Your task to perform on an android device: Show me popular videos on Youtube Image 0: 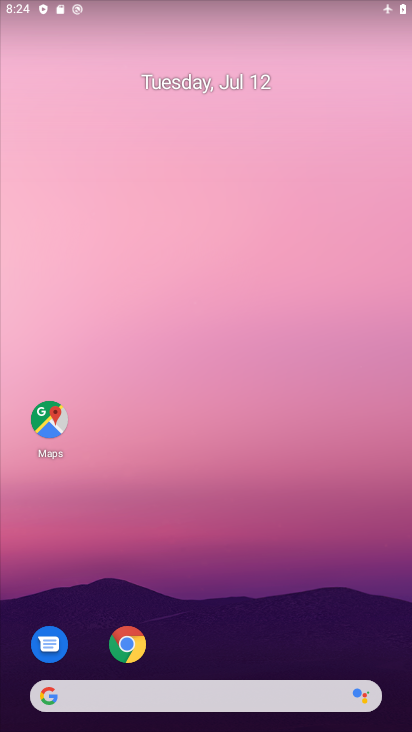
Step 0: drag from (230, 638) to (212, 175)
Your task to perform on an android device: Show me popular videos on Youtube Image 1: 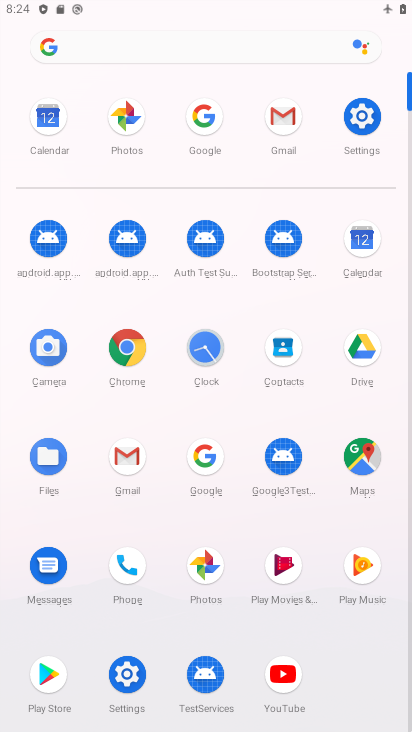
Step 1: click (290, 680)
Your task to perform on an android device: Show me popular videos on Youtube Image 2: 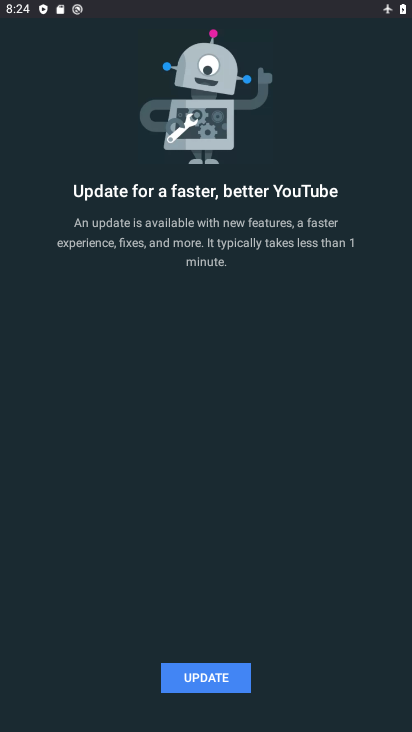
Step 2: click (211, 663)
Your task to perform on an android device: Show me popular videos on Youtube Image 3: 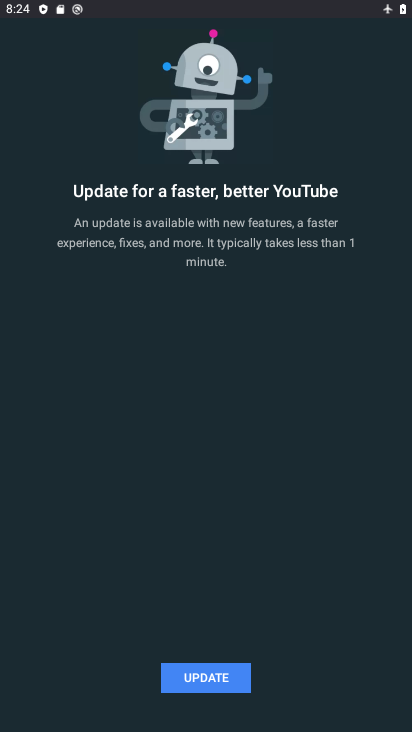
Step 3: click (220, 658)
Your task to perform on an android device: Show me popular videos on Youtube Image 4: 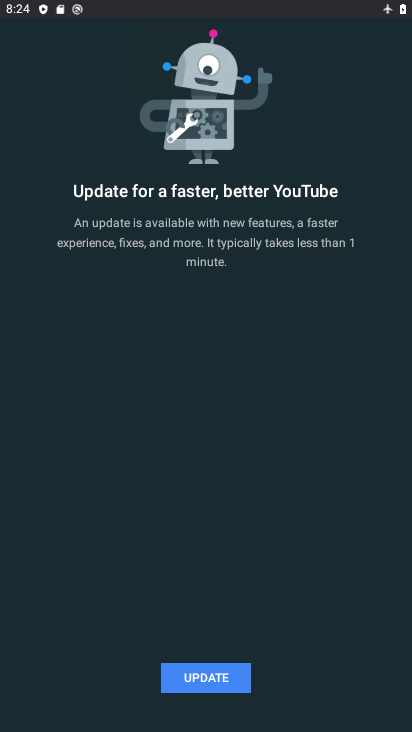
Step 4: click (211, 684)
Your task to perform on an android device: Show me popular videos on Youtube Image 5: 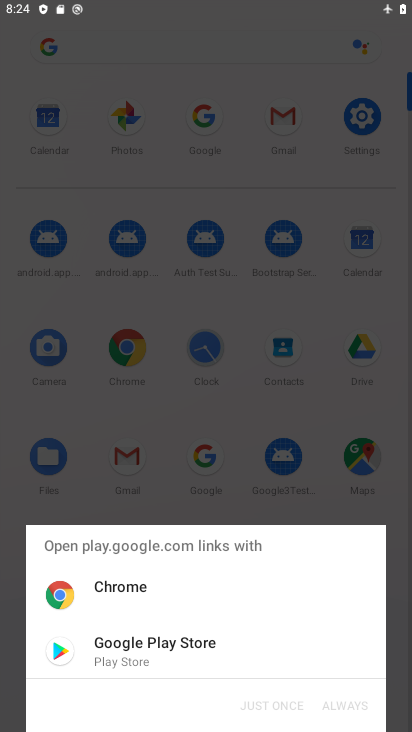
Step 5: click (160, 645)
Your task to perform on an android device: Show me popular videos on Youtube Image 6: 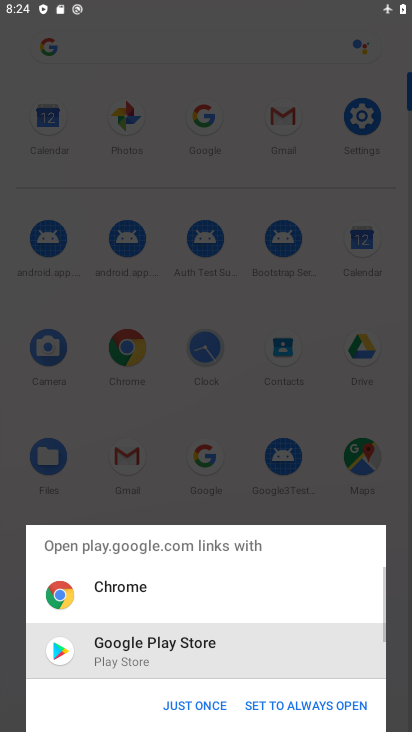
Step 6: click (204, 707)
Your task to perform on an android device: Show me popular videos on Youtube Image 7: 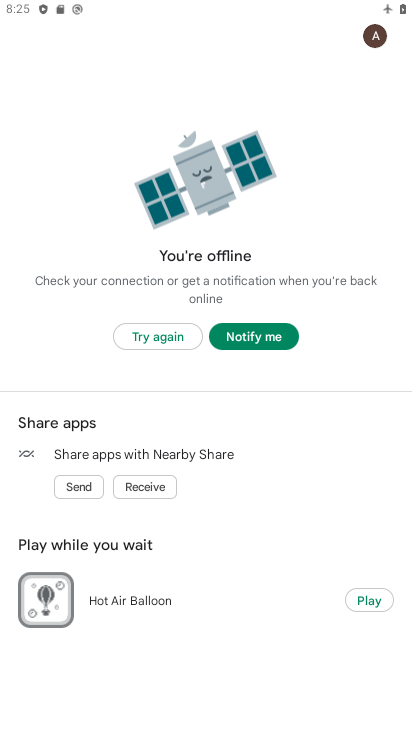
Step 7: task complete